Your task to perform on an android device: open a new tab in the chrome app Image 0: 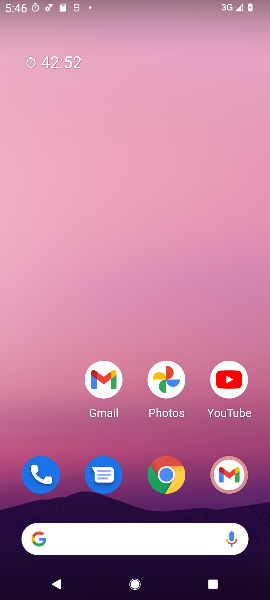
Step 0: press home button
Your task to perform on an android device: open a new tab in the chrome app Image 1: 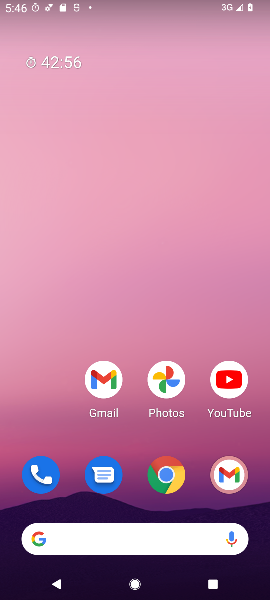
Step 1: drag from (57, 427) to (64, 201)
Your task to perform on an android device: open a new tab in the chrome app Image 2: 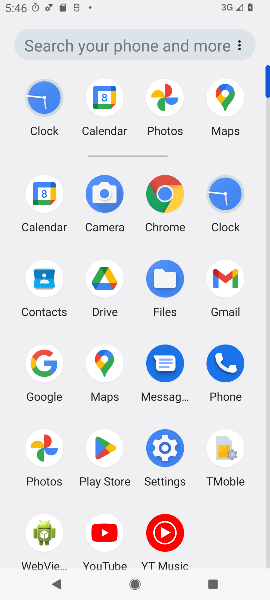
Step 2: click (165, 195)
Your task to perform on an android device: open a new tab in the chrome app Image 3: 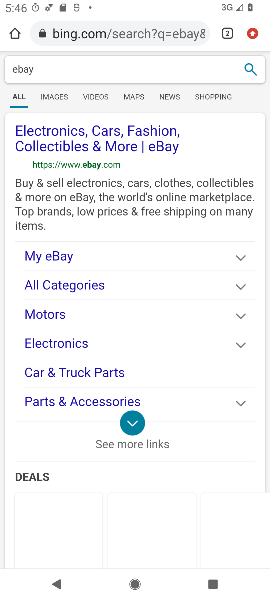
Step 3: click (253, 34)
Your task to perform on an android device: open a new tab in the chrome app Image 4: 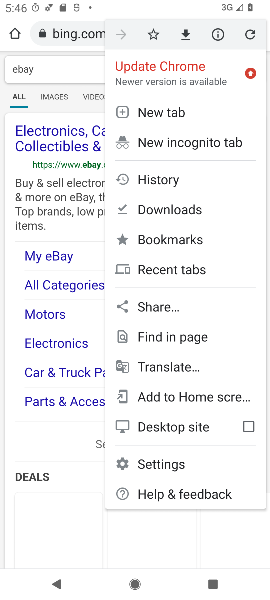
Step 4: click (176, 114)
Your task to perform on an android device: open a new tab in the chrome app Image 5: 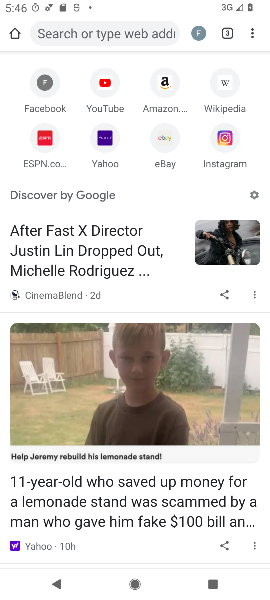
Step 5: task complete